Your task to perform on an android device: clear history in the chrome app Image 0: 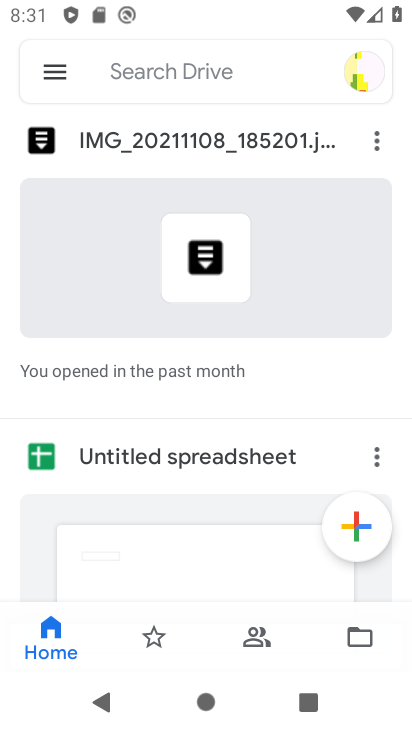
Step 0: press home button
Your task to perform on an android device: clear history in the chrome app Image 1: 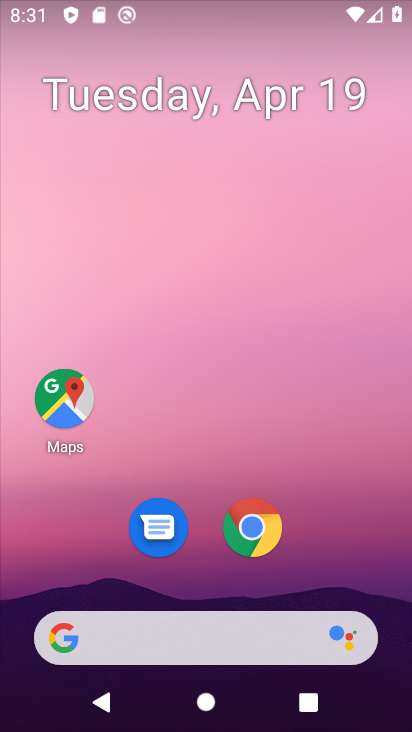
Step 1: drag from (282, 584) to (327, 239)
Your task to perform on an android device: clear history in the chrome app Image 2: 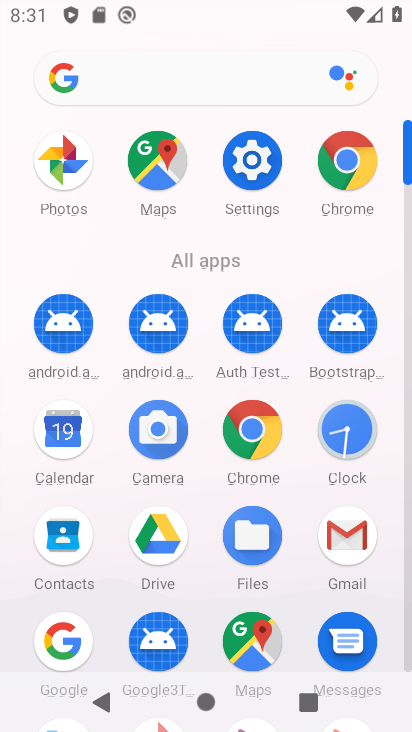
Step 2: click (247, 432)
Your task to perform on an android device: clear history in the chrome app Image 3: 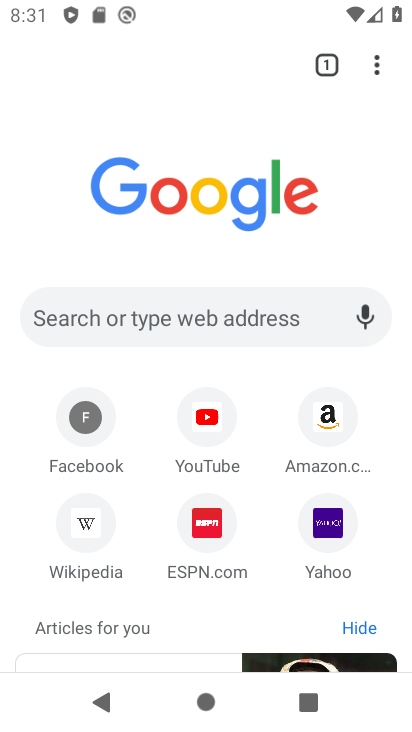
Step 3: click (380, 63)
Your task to perform on an android device: clear history in the chrome app Image 4: 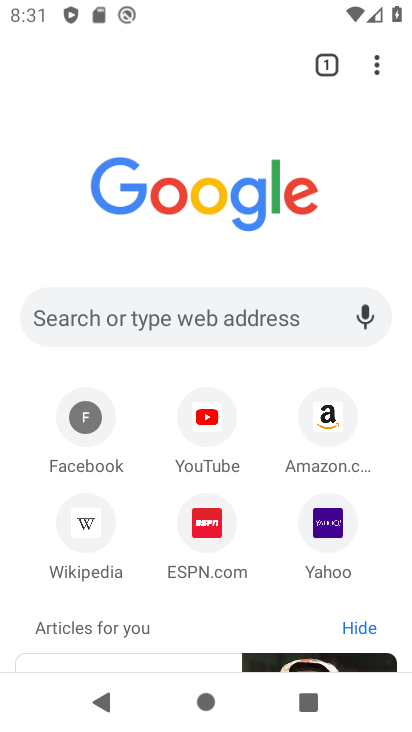
Step 4: click (380, 63)
Your task to perform on an android device: clear history in the chrome app Image 5: 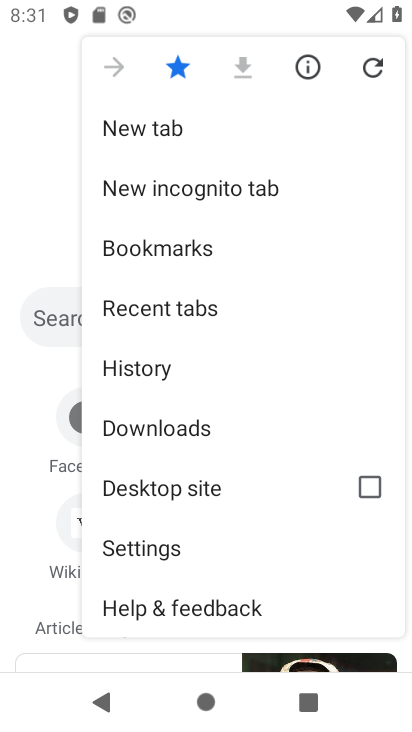
Step 5: click (157, 361)
Your task to perform on an android device: clear history in the chrome app Image 6: 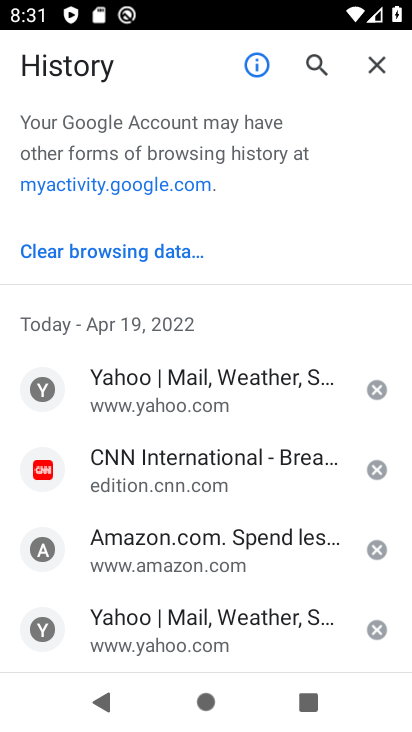
Step 6: click (130, 253)
Your task to perform on an android device: clear history in the chrome app Image 7: 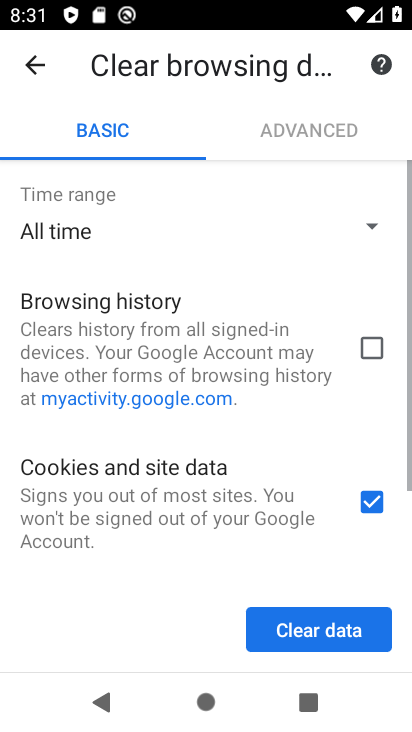
Step 7: click (310, 632)
Your task to perform on an android device: clear history in the chrome app Image 8: 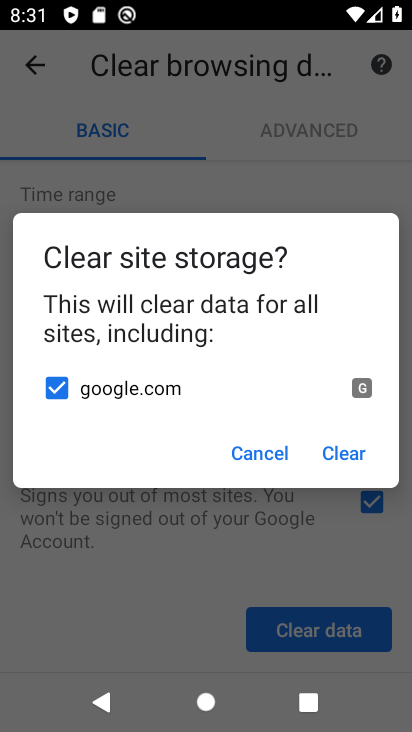
Step 8: click (336, 456)
Your task to perform on an android device: clear history in the chrome app Image 9: 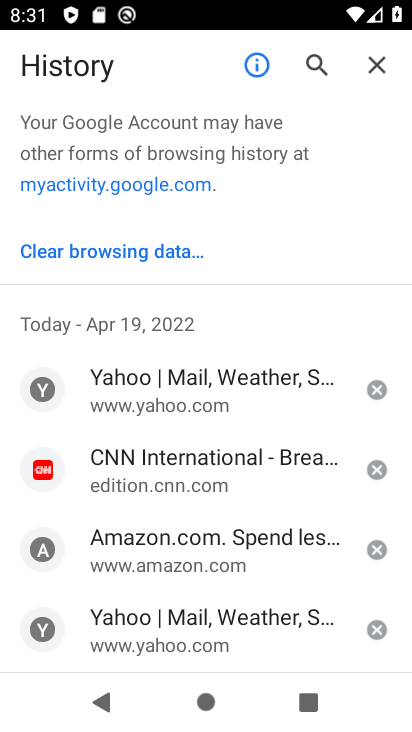
Step 9: task complete